Your task to perform on an android device: see tabs open on other devices in the chrome app Image 0: 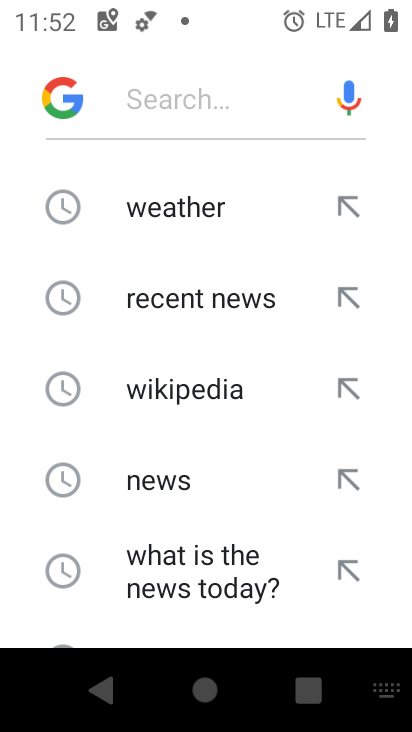
Step 0: press home button
Your task to perform on an android device: see tabs open on other devices in the chrome app Image 1: 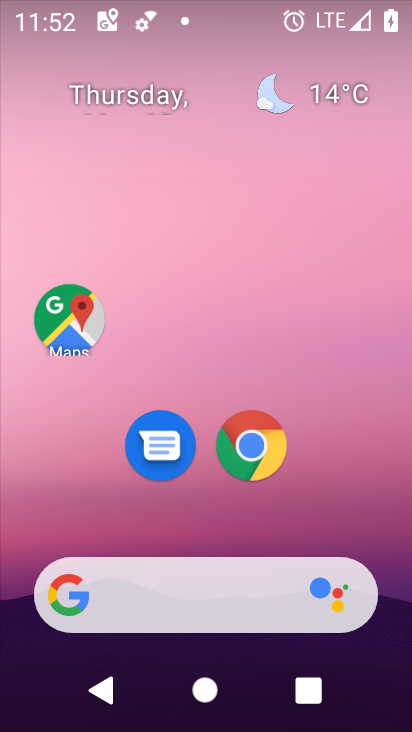
Step 1: drag from (282, 518) to (296, 145)
Your task to perform on an android device: see tabs open on other devices in the chrome app Image 2: 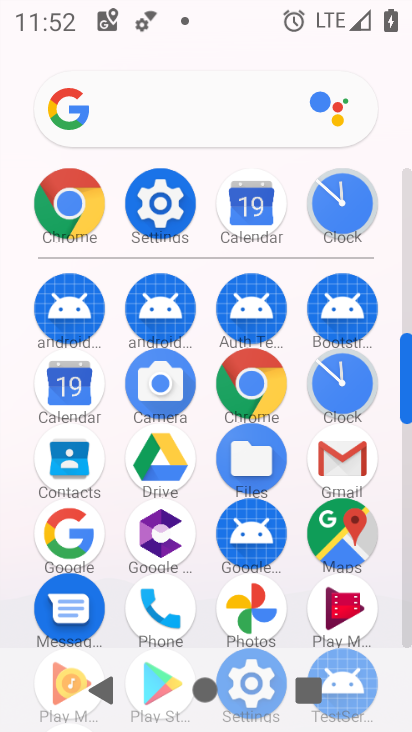
Step 2: click (241, 400)
Your task to perform on an android device: see tabs open on other devices in the chrome app Image 3: 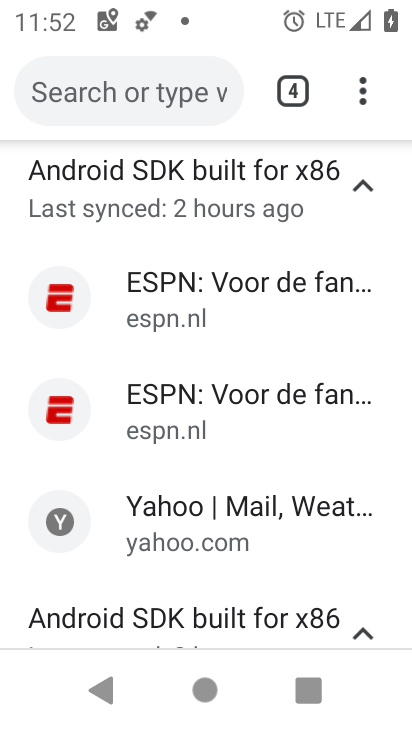
Step 3: task complete